Your task to perform on an android device: find snoozed emails in the gmail app Image 0: 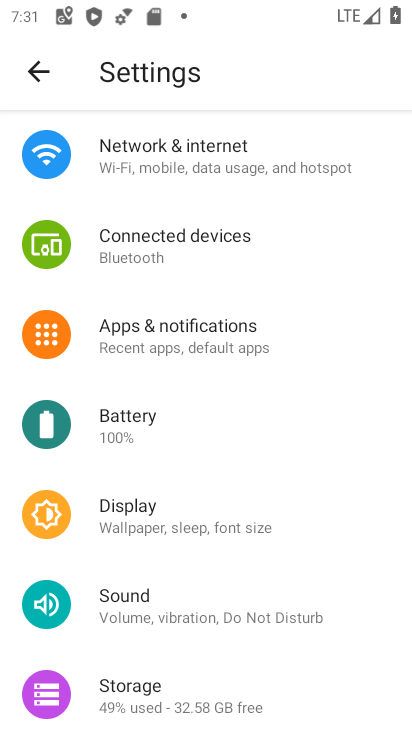
Step 0: press home button
Your task to perform on an android device: find snoozed emails in the gmail app Image 1: 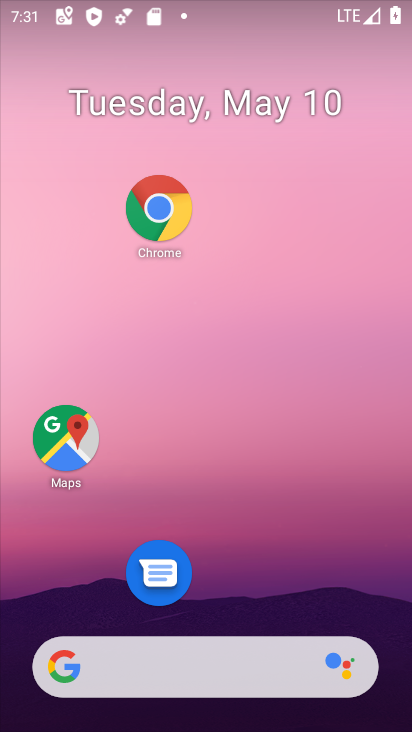
Step 1: drag from (320, 696) to (253, 391)
Your task to perform on an android device: find snoozed emails in the gmail app Image 2: 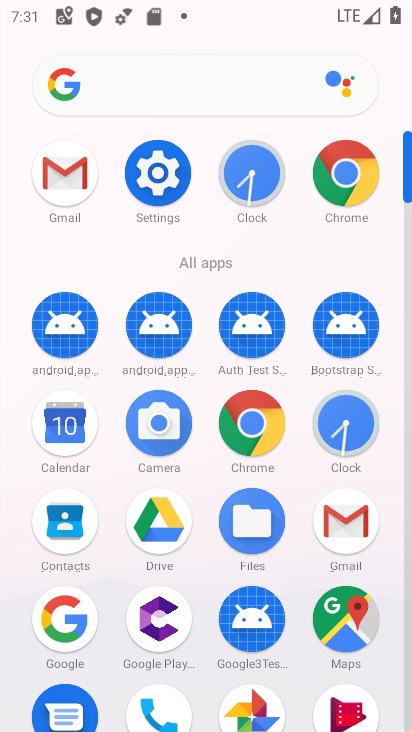
Step 2: click (80, 182)
Your task to perform on an android device: find snoozed emails in the gmail app Image 3: 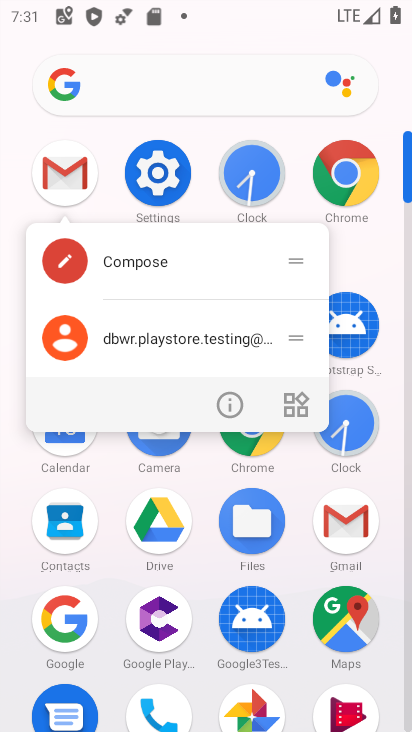
Step 3: click (62, 192)
Your task to perform on an android device: find snoozed emails in the gmail app Image 4: 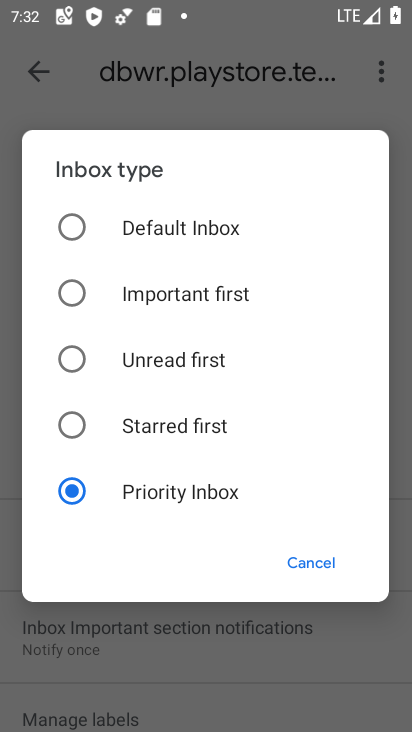
Step 4: click (321, 562)
Your task to perform on an android device: find snoozed emails in the gmail app Image 5: 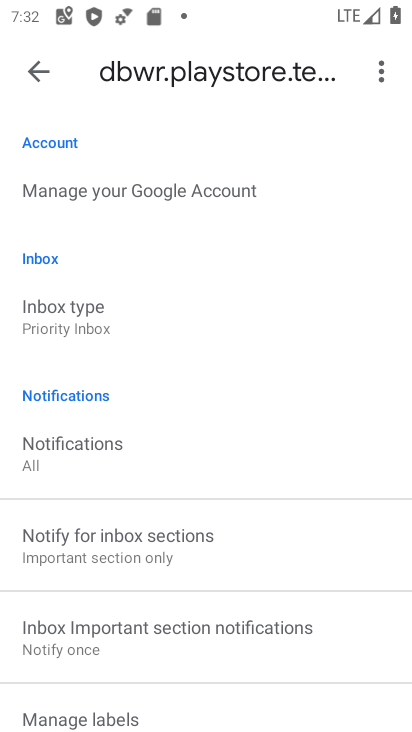
Step 5: click (35, 82)
Your task to perform on an android device: find snoozed emails in the gmail app Image 6: 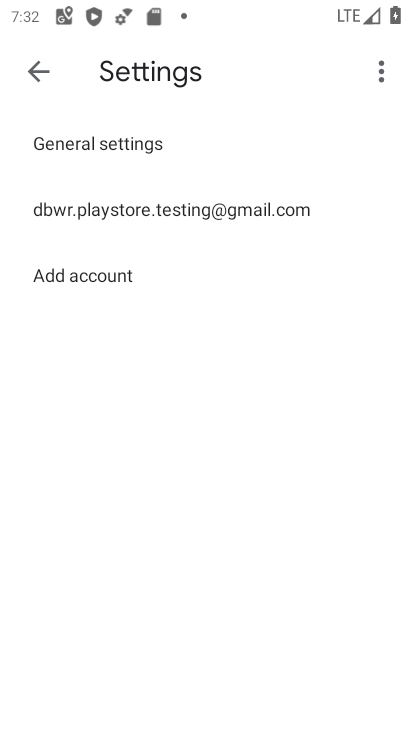
Step 6: click (33, 72)
Your task to perform on an android device: find snoozed emails in the gmail app Image 7: 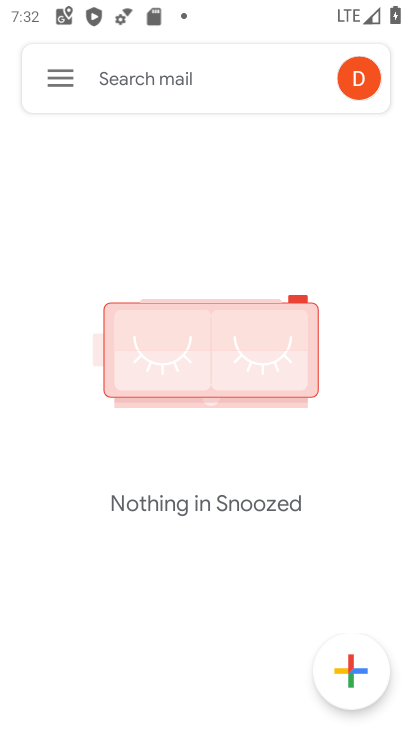
Step 7: click (56, 80)
Your task to perform on an android device: find snoozed emails in the gmail app Image 8: 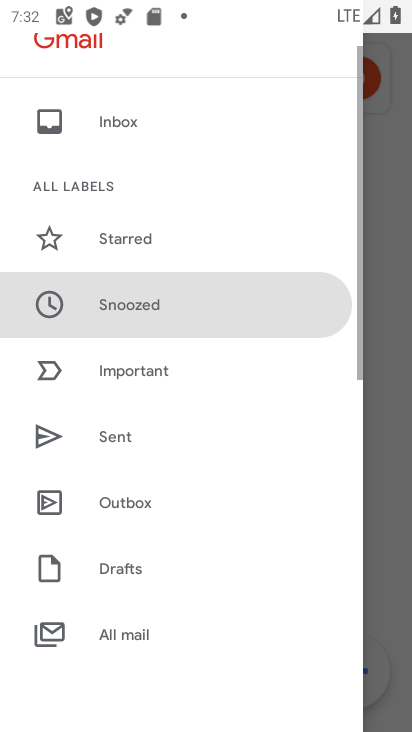
Step 8: click (166, 301)
Your task to perform on an android device: find snoozed emails in the gmail app Image 9: 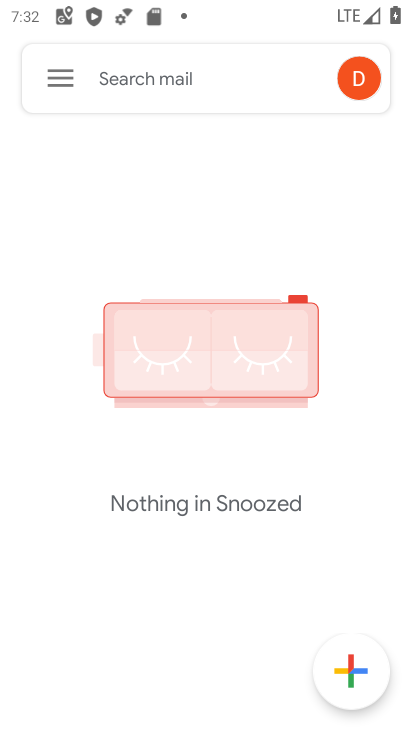
Step 9: task complete